Your task to perform on an android device: check out phone information Image 0: 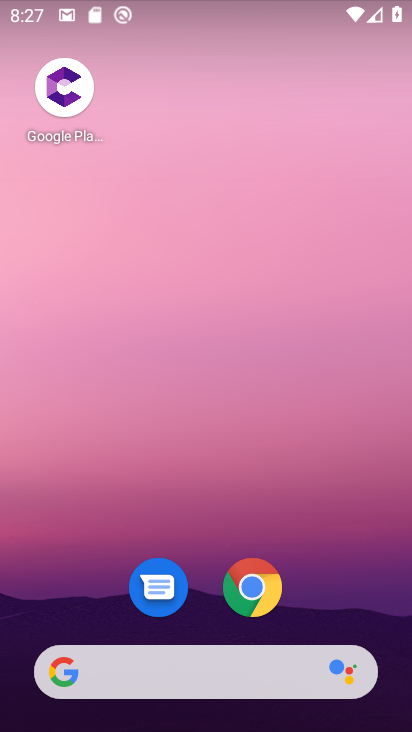
Step 0: drag from (318, 618) to (345, 63)
Your task to perform on an android device: check out phone information Image 1: 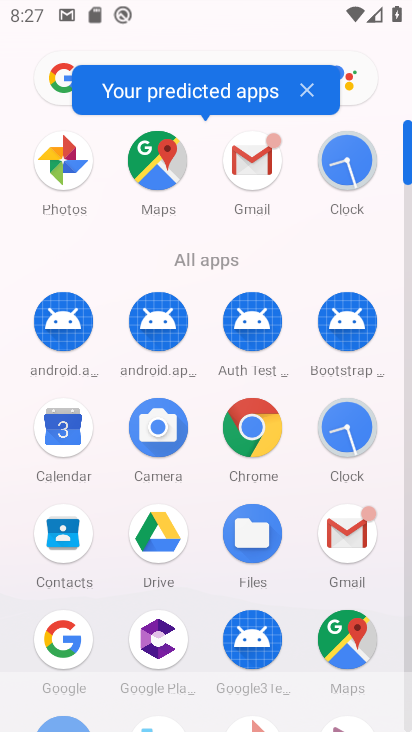
Step 1: drag from (181, 565) to (215, 88)
Your task to perform on an android device: check out phone information Image 2: 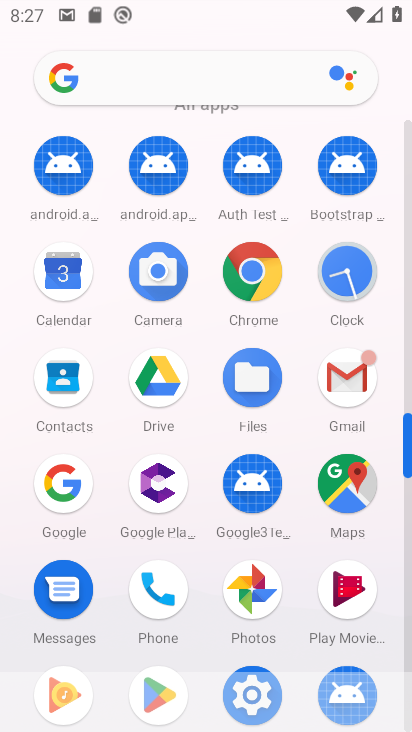
Step 2: click (167, 582)
Your task to perform on an android device: check out phone information Image 3: 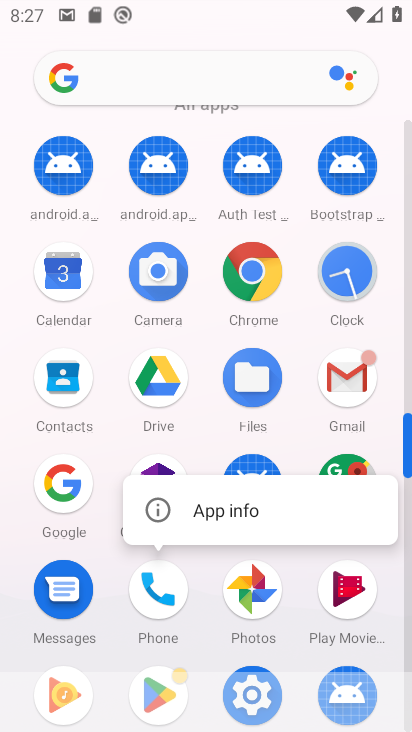
Step 3: click (226, 511)
Your task to perform on an android device: check out phone information Image 4: 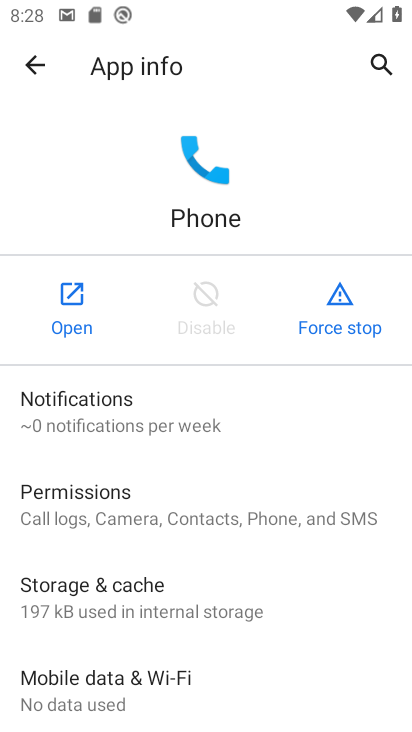
Step 4: task complete